Your task to perform on an android device: Do I have any events tomorrow? Image 0: 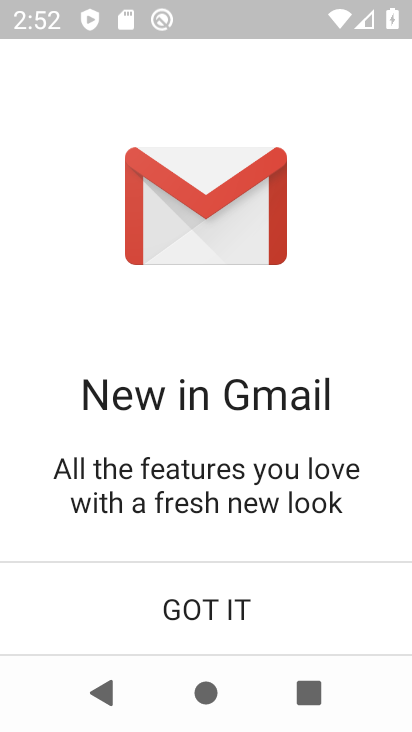
Step 0: press home button
Your task to perform on an android device: Do I have any events tomorrow? Image 1: 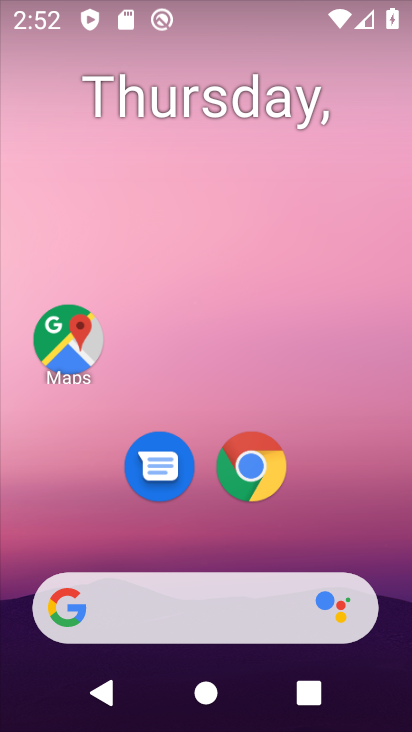
Step 1: drag from (215, 570) to (402, 124)
Your task to perform on an android device: Do I have any events tomorrow? Image 2: 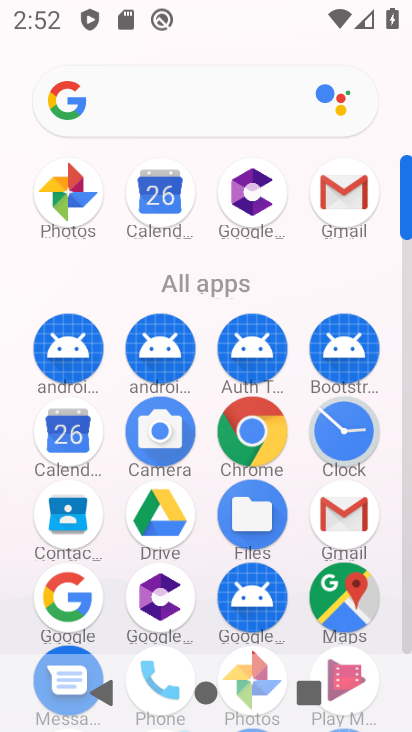
Step 2: click (53, 437)
Your task to perform on an android device: Do I have any events tomorrow? Image 3: 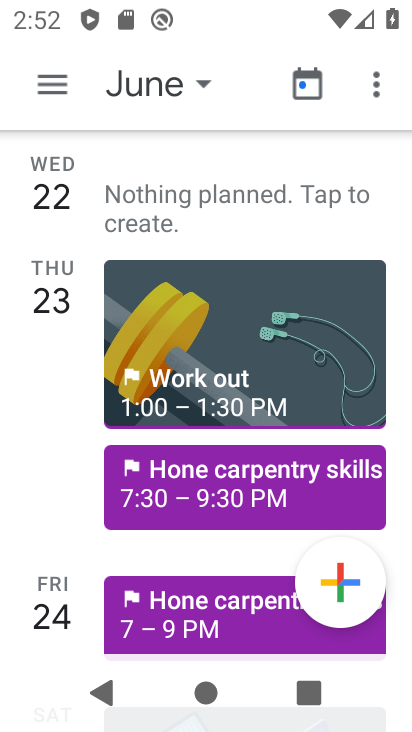
Step 3: task complete